Your task to perform on an android device: set default search engine in the chrome app Image 0: 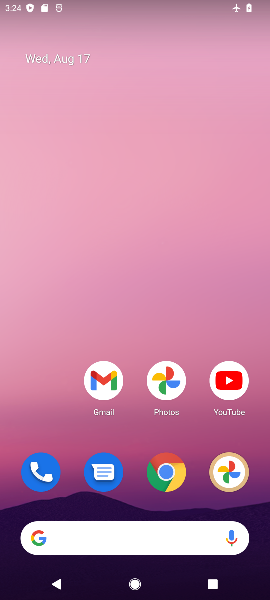
Step 0: click (168, 471)
Your task to perform on an android device: set default search engine in the chrome app Image 1: 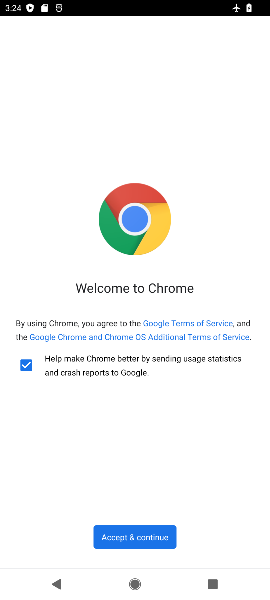
Step 1: click (128, 540)
Your task to perform on an android device: set default search engine in the chrome app Image 2: 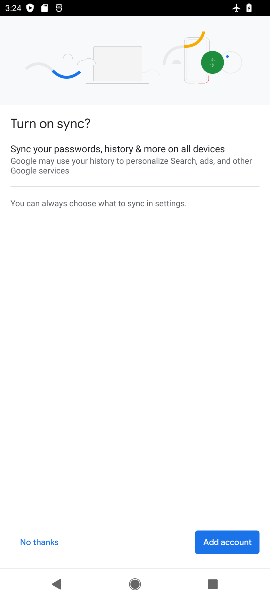
Step 2: click (40, 542)
Your task to perform on an android device: set default search engine in the chrome app Image 3: 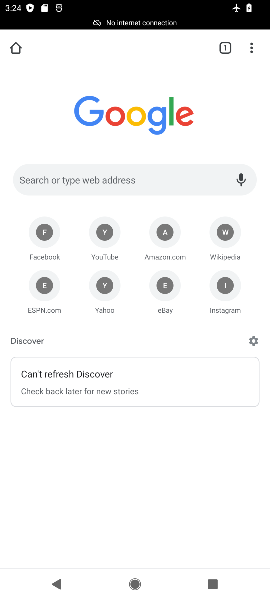
Step 3: click (250, 53)
Your task to perform on an android device: set default search engine in the chrome app Image 4: 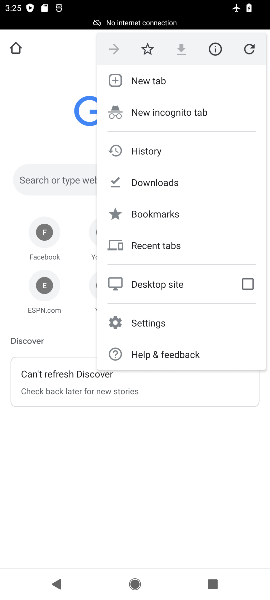
Step 4: click (154, 315)
Your task to perform on an android device: set default search engine in the chrome app Image 5: 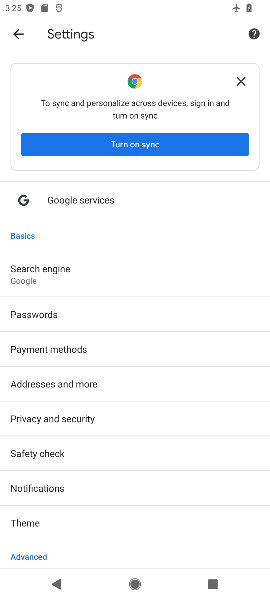
Step 5: click (75, 265)
Your task to perform on an android device: set default search engine in the chrome app Image 6: 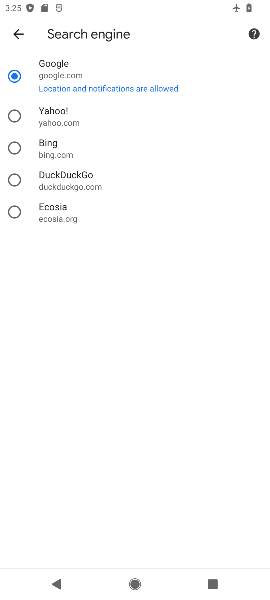
Step 6: task complete